Your task to perform on an android device: all mails in gmail Image 0: 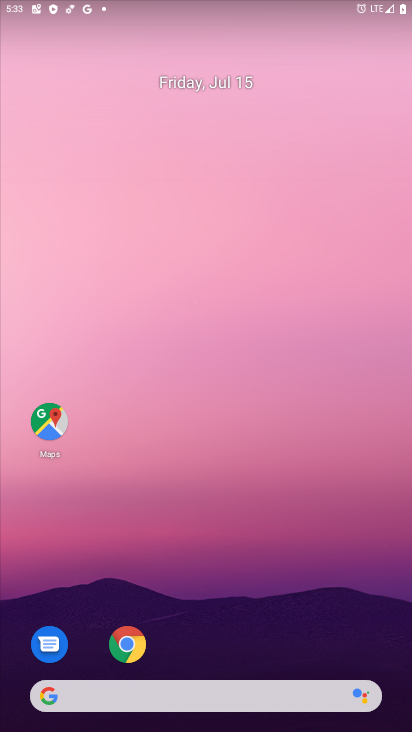
Step 0: drag from (217, 657) to (219, 87)
Your task to perform on an android device: all mails in gmail Image 1: 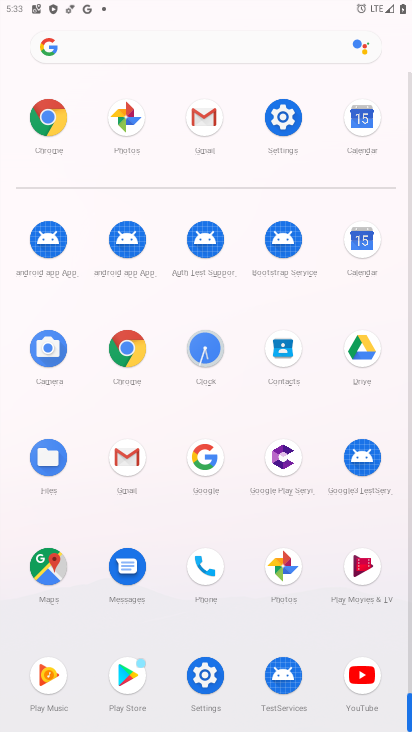
Step 1: click (139, 463)
Your task to perform on an android device: all mails in gmail Image 2: 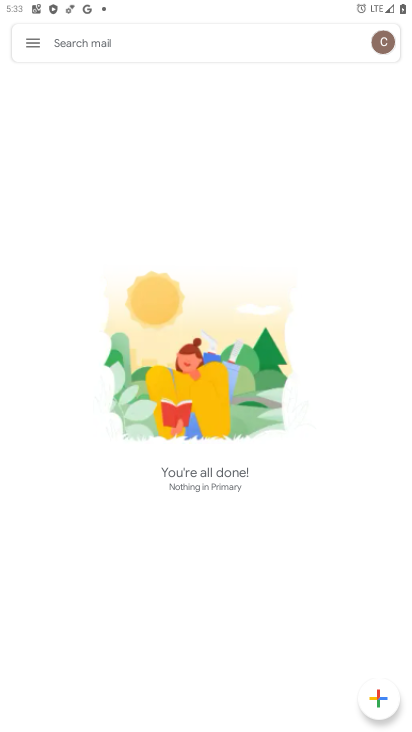
Step 2: click (40, 47)
Your task to perform on an android device: all mails in gmail Image 3: 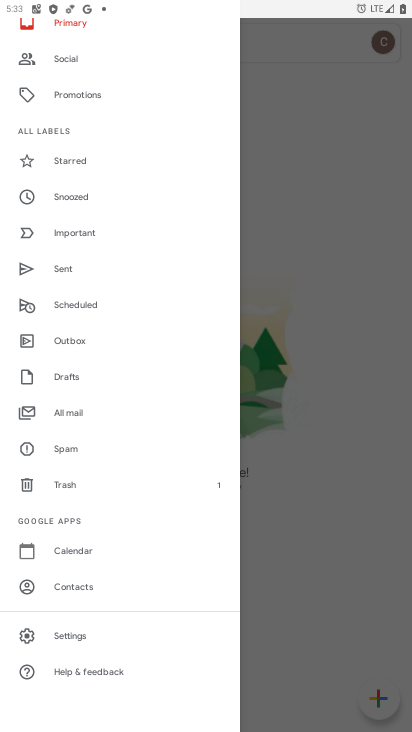
Step 3: click (86, 423)
Your task to perform on an android device: all mails in gmail Image 4: 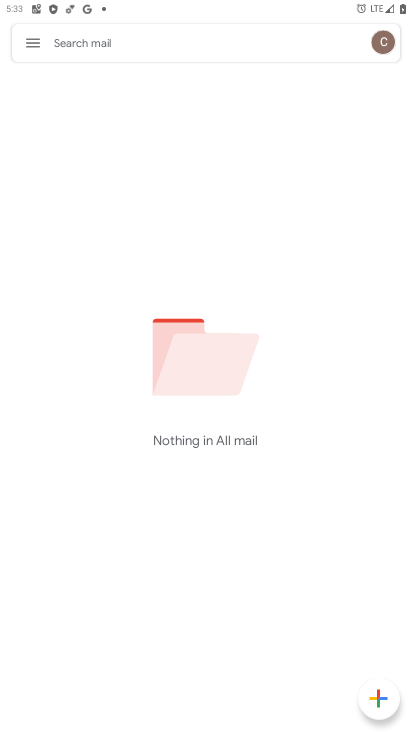
Step 4: task complete